Your task to perform on an android device: Check out the best rated electric trimmers on Lowe's Image 0: 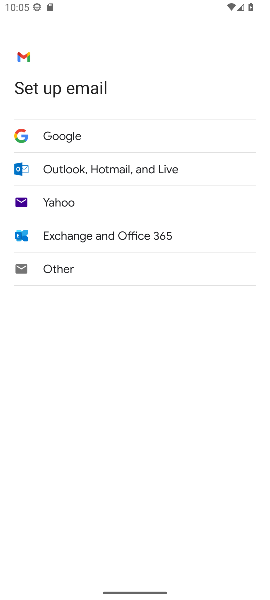
Step 0: press home button
Your task to perform on an android device: Check out the best rated electric trimmers on Lowe's Image 1: 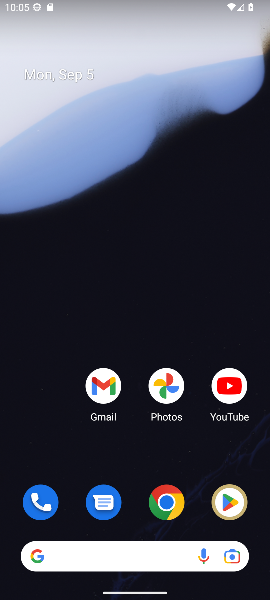
Step 1: drag from (254, 329) to (201, 7)
Your task to perform on an android device: Check out the best rated electric trimmers on Lowe's Image 2: 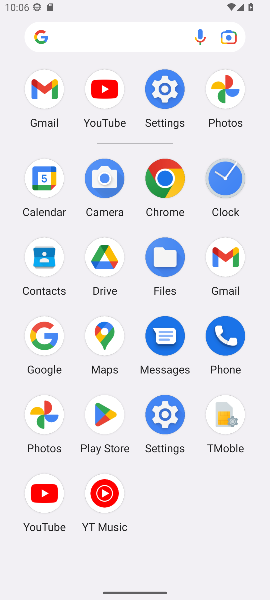
Step 2: click (40, 349)
Your task to perform on an android device: Check out the best rated electric trimmers on Lowe's Image 3: 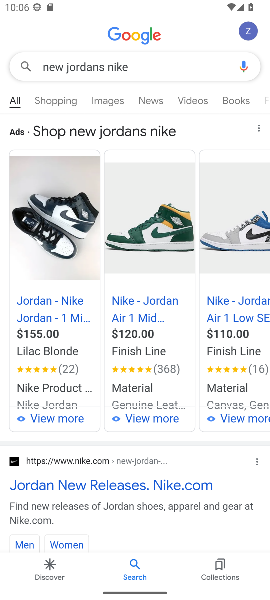
Step 3: press back button
Your task to perform on an android device: Check out the best rated electric trimmers on Lowe's Image 4: 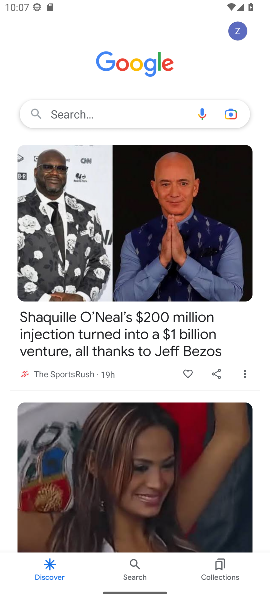
Step 4: click (85, 109)
Your task to perform on an android device: Check out the best rated electric trimmers on Lowe's Image 5: 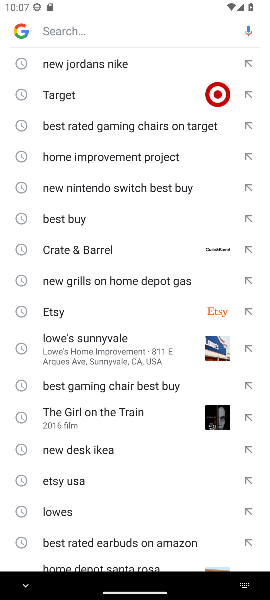
Step 5: type " best rated electric trimmers on Lowe's"
Your task to perform on an android device: Check out the best rated electric trimmers on Lowe's Image 6: 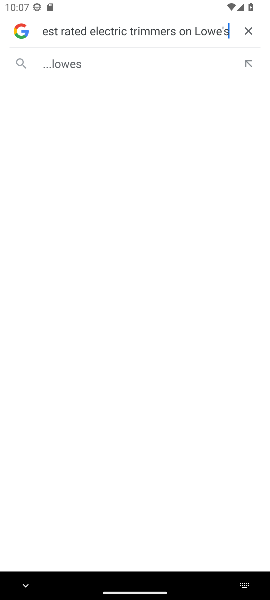
Step 6: click (75, 60)
Your task to perform on an android device: Check out the best rated electric trimmers on Lowe's Image 7: 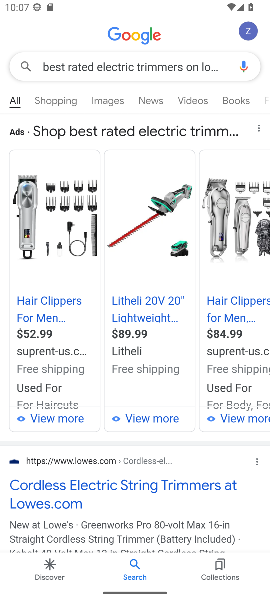
Step 7: task complete